Your task to perform on an android device: Go to location settings Image 0: 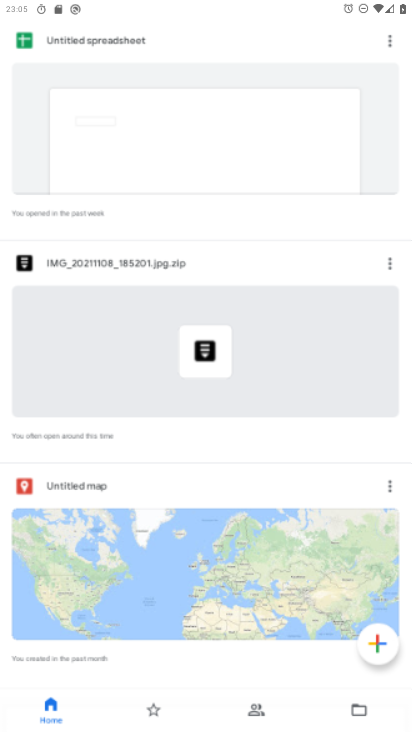
Step 0: drag from (167, 663) to (203, 272)
Your task to perform on an android device: Go to location settings Image 1: 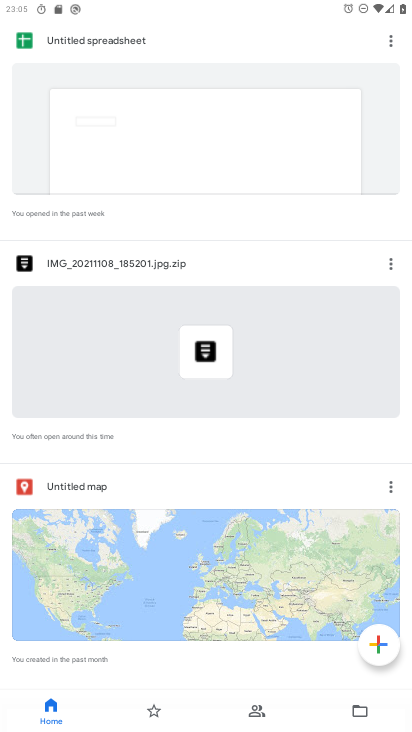
Step 1: press home button
Your task to perform on an android device: Go to location settings Image 2: 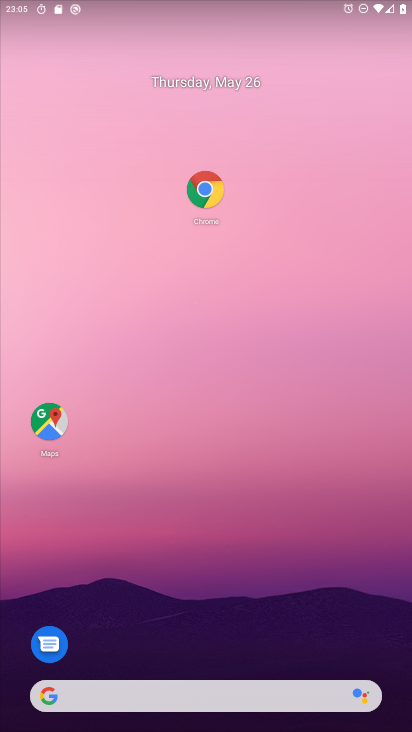
Step 2: drag from (168, 613) to (159, 125)
Your task to perform on an android device: Go to location settings Image 3: 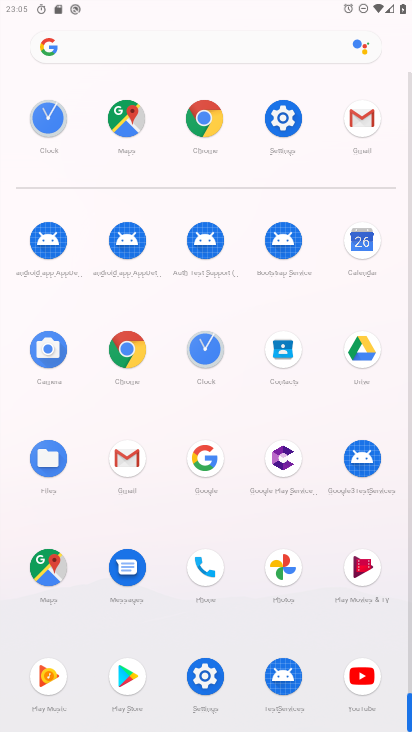
Step 3: click (287, 129)
Your task to perform on an android device: Go to location settings Image 4: 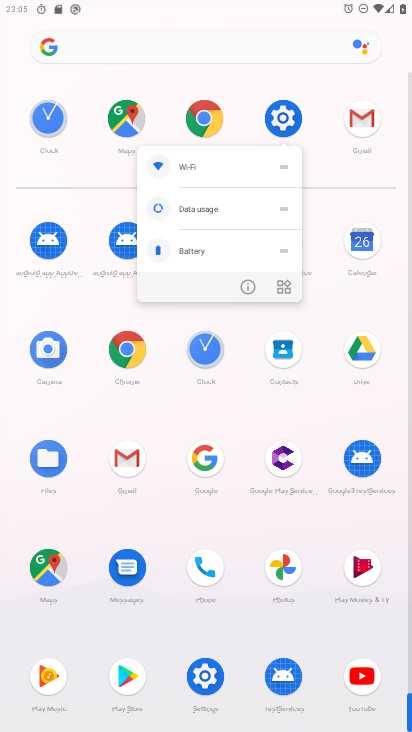
Step 4: click (248, 282)
Your task to perform on an android device: Go to location settings Image 5: 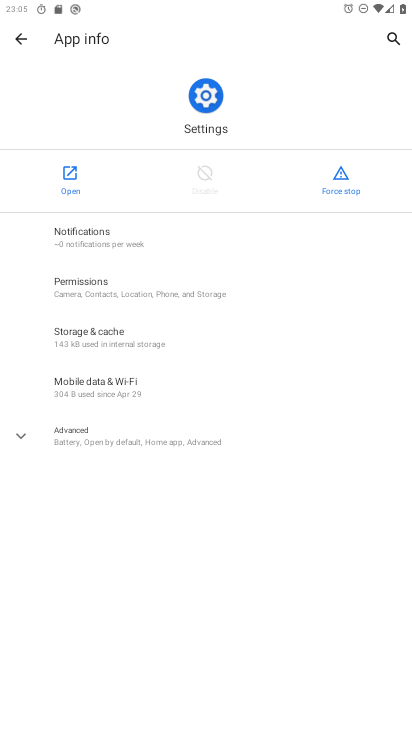
Step 5: click (74, 169)
Your task to perform on an android device: Go to location settings Image 6: 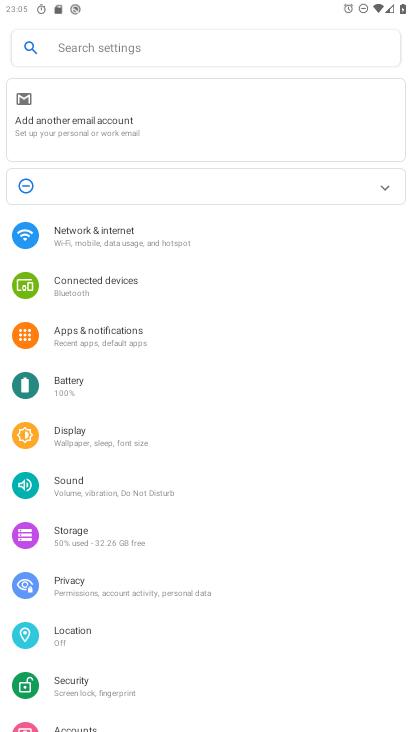
Step 6: click (98, 636)
Your task to perform on an android device: Go to location settings Image 7: 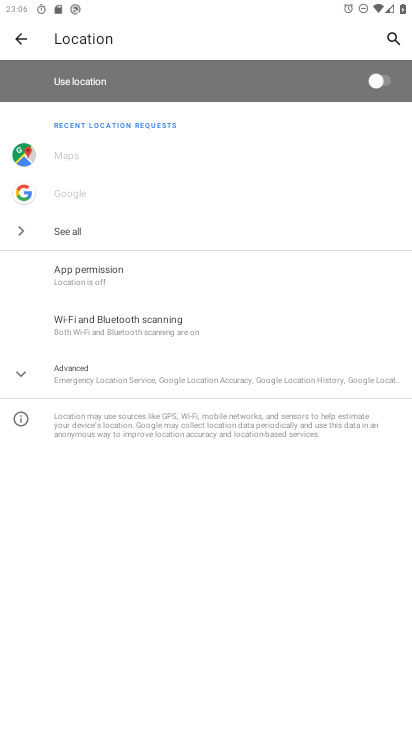
Step 7: task complete